Your task to perform on an android device: turn off airplane mode Image 0: 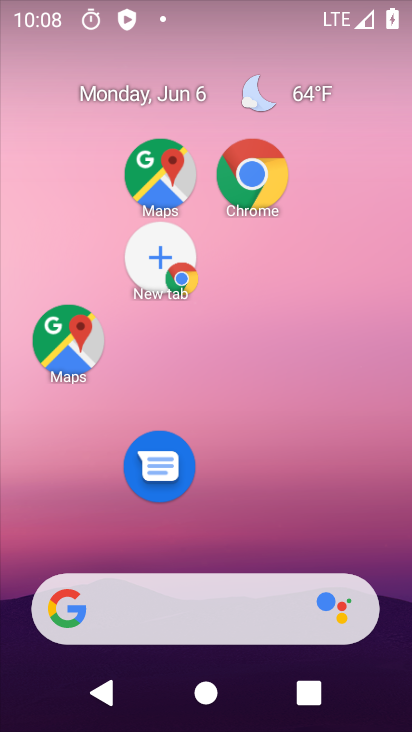
Step 0: drag from (193, 5) to (381, 166)
Your task to perform on an android device: turn off airplane mode Image 1: 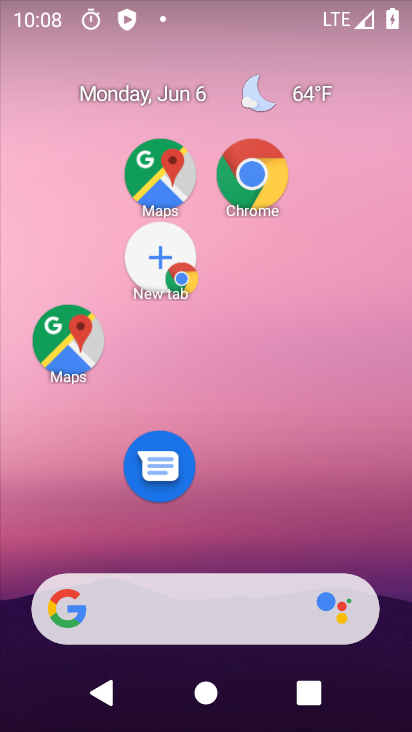
Step 1: click (160, 87)
Your task to perform on an android device: turn off airplane mode Image 2: 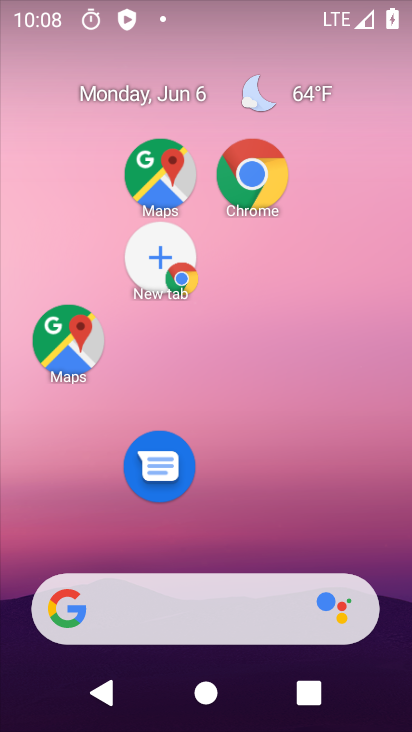
Step 2: drag from (285, 696) to (210, 57)
Your task to perform on an android device: turn off airplane mode Image 3: 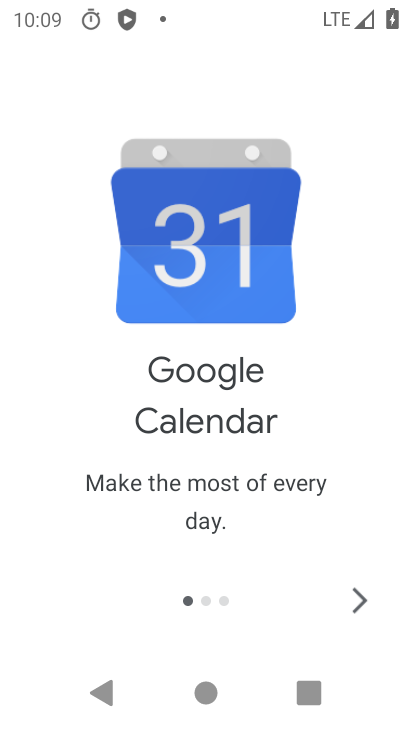
Step 3: drag from (244, 548) to (172, 0)
Your task to perform on an android device: turn off airplane mode Image 4: 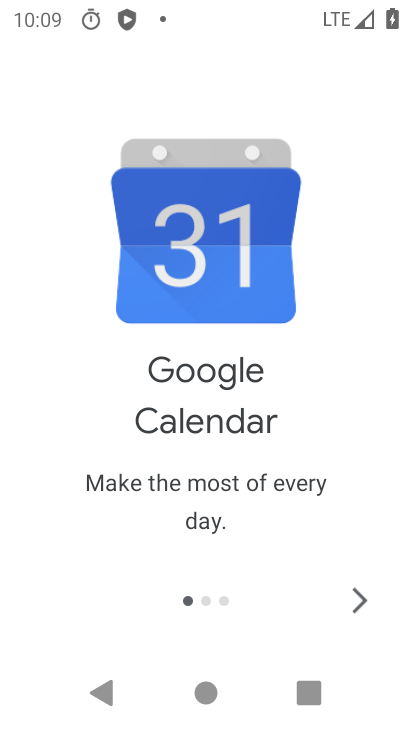
Step 4: drag from (200, 349) to (201, 165)
Your task to perform on an android device: turn off airplane mode Image 5: 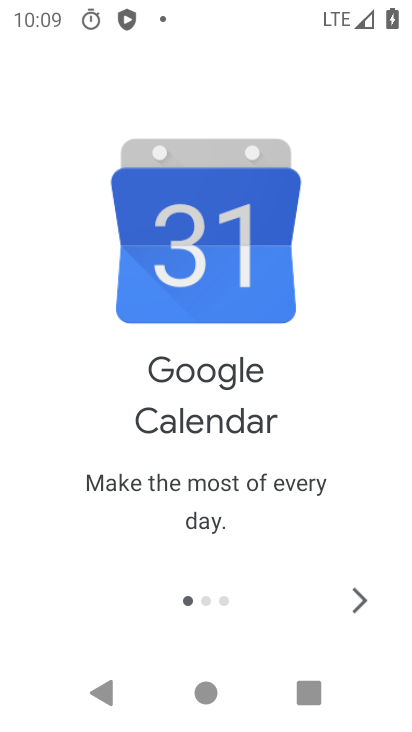
Step 5: click (346, 597)
Your task to perform on an android device: turn off airplane mode Image 6: 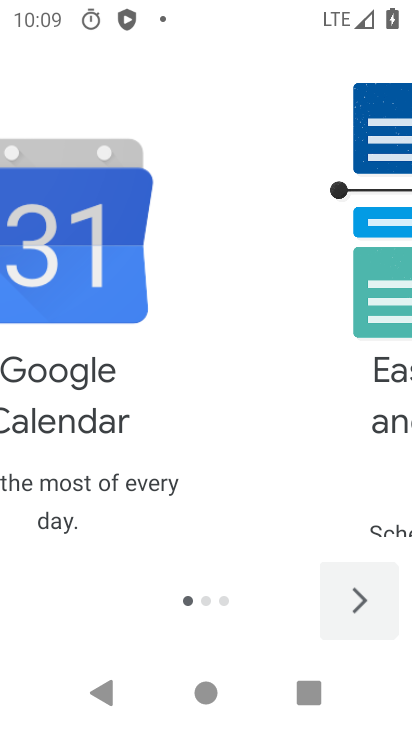
Step 6: click (361, 597)
Your task to perform on an android device: turn off airplane mode Image 7: 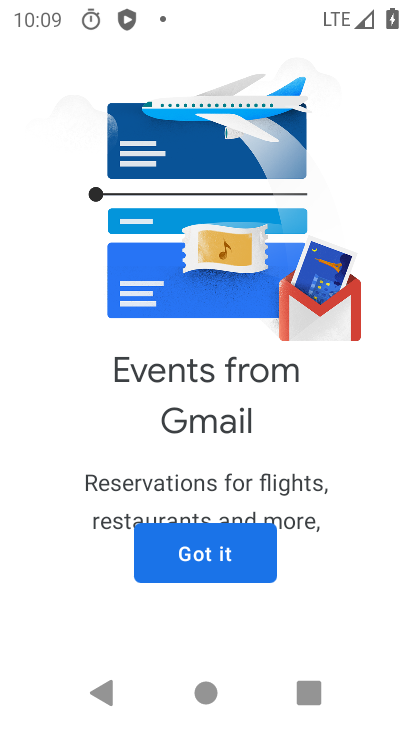
Step 7: click (362, 597)
Your task to perform on an android device: turn off airplane mode Image 8: 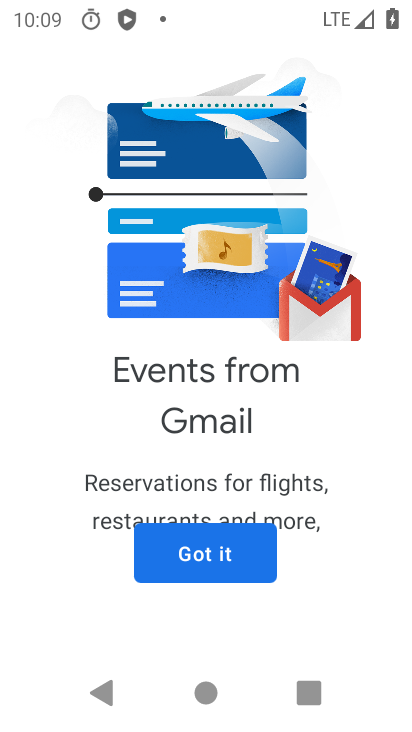
Step 8: click (234, 553)
Your task to perform on an android device: turn off airplane mode Image 9: 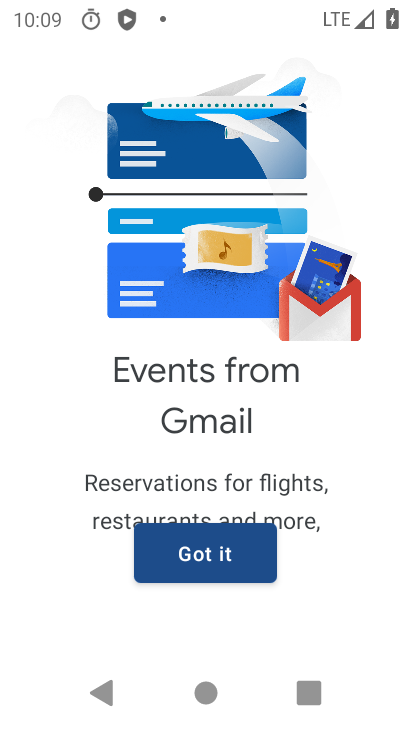
Step 9: click (234, 553)
Your task to perform on an android device: turn off airplane mode Image 10: 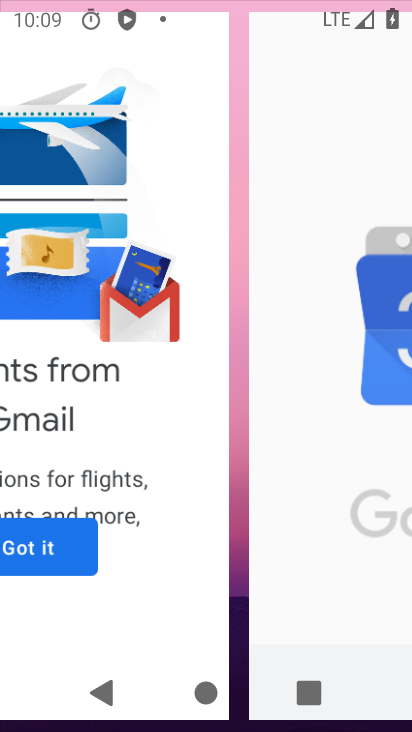
Step 10: click (235, 553)
Your task to perform on an android device: turn off airplane mode Image 11: 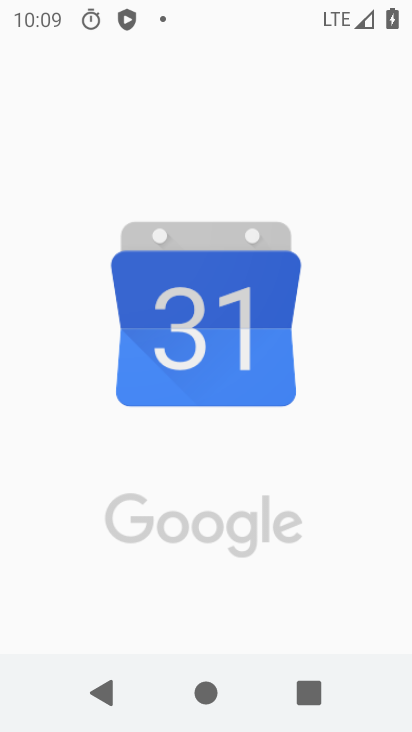
Step 11: click (235, 553)
Your task to perform on an android device: turn off airplane mode Image 12: 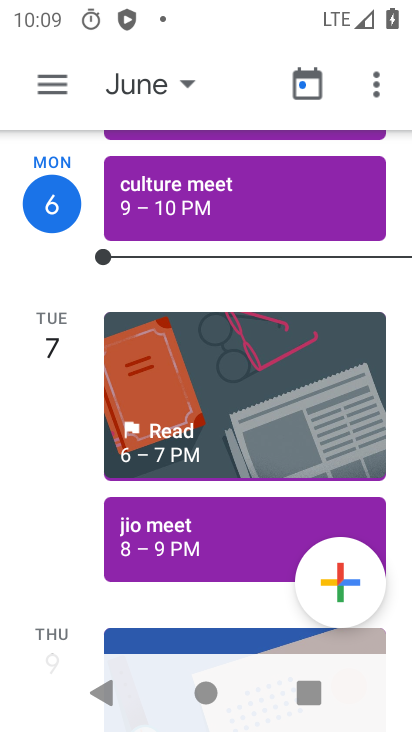
Step 12: press home button
Your task to perform on an android device: turn off airplane mode Image 13: 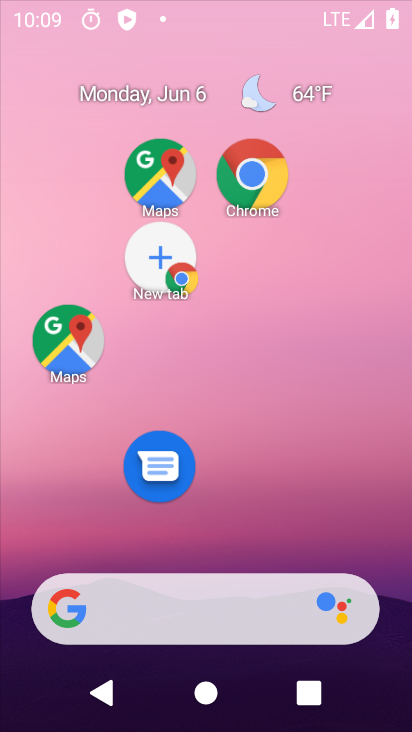
Step 13: press home button
Your task to perform on an android device: turn off airplane mode Image 14: 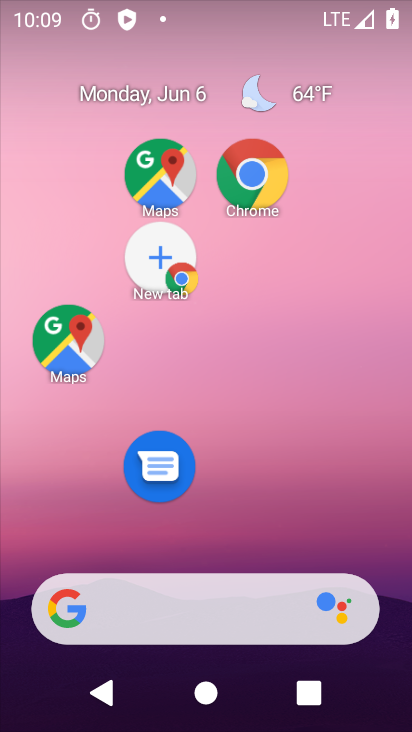
Step 14: drag from (239, 418) to (127, 7)
Your task to perform on an android device: turn off airplane mode Image 15: 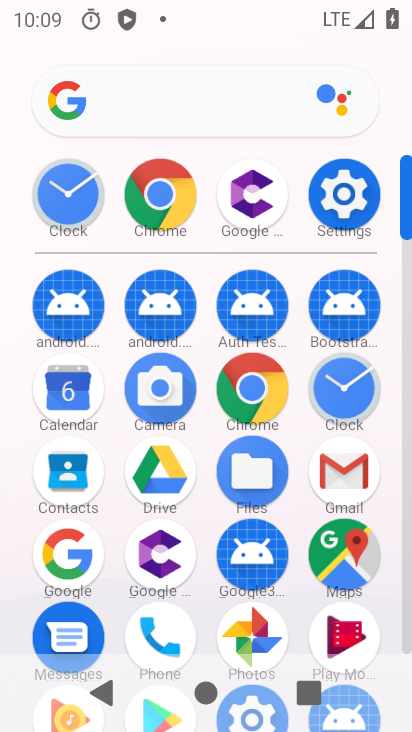
Step 15: click (337, 198)
Your task to perform on an android device: turn off airplane mode Image 16: 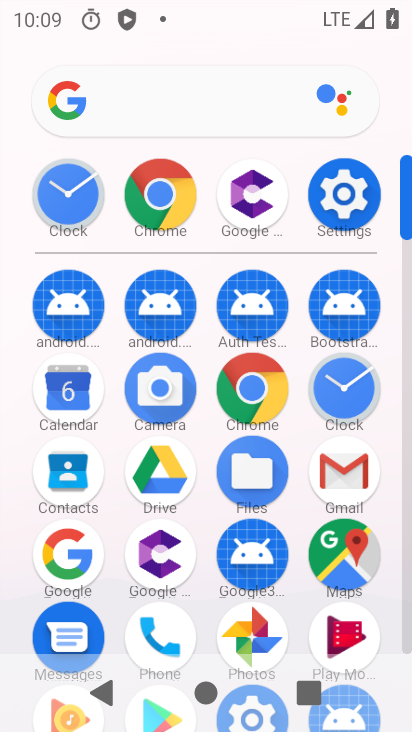
Step 16: click (342, 194)
Your task to perform on an android device: turn off airplane mode Image 17: 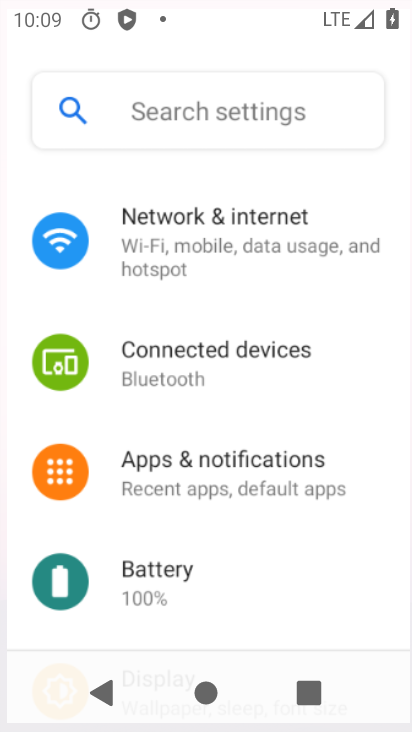
Step 17: click (342, 192)
Your task to perform on an android device: turn off airplane mode Image 18: 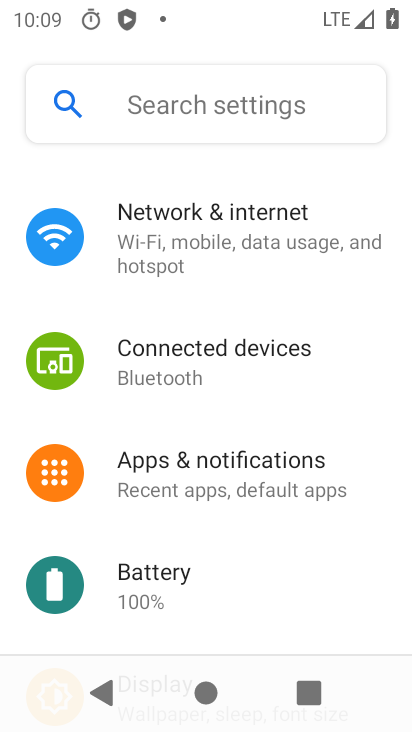
Step 18: click (342, 192)
Your task to perform on an android device: turn off airplane mode Image 19: 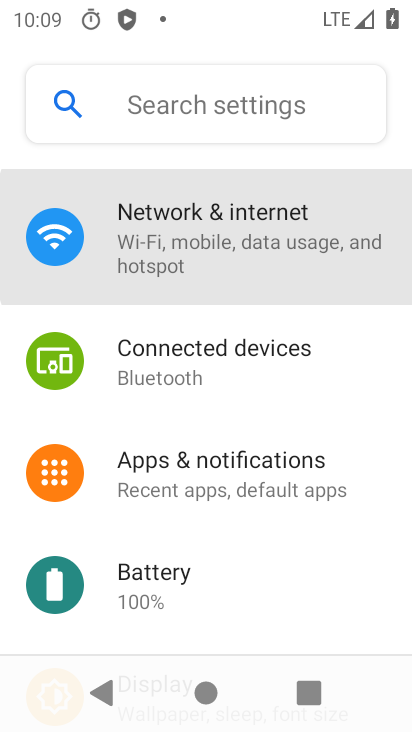
Step 19: click (343, 191)
Your task to perform on an android device: turn off airplane mode Image 20: 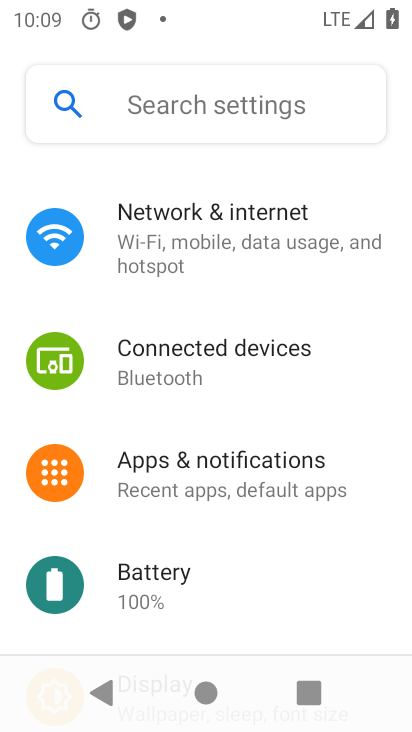
Step 20: click (343, 191)
Your task to perform on an android device: turn off airplane mode Image 21: 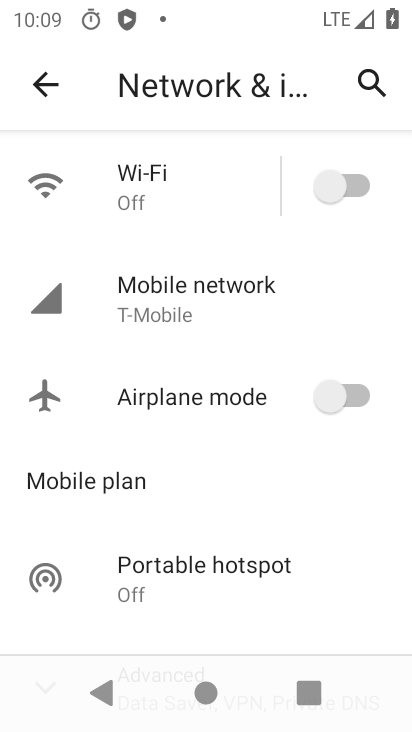
Step 21: task complete